Your task to perform on an android device: delete location history Image 0: 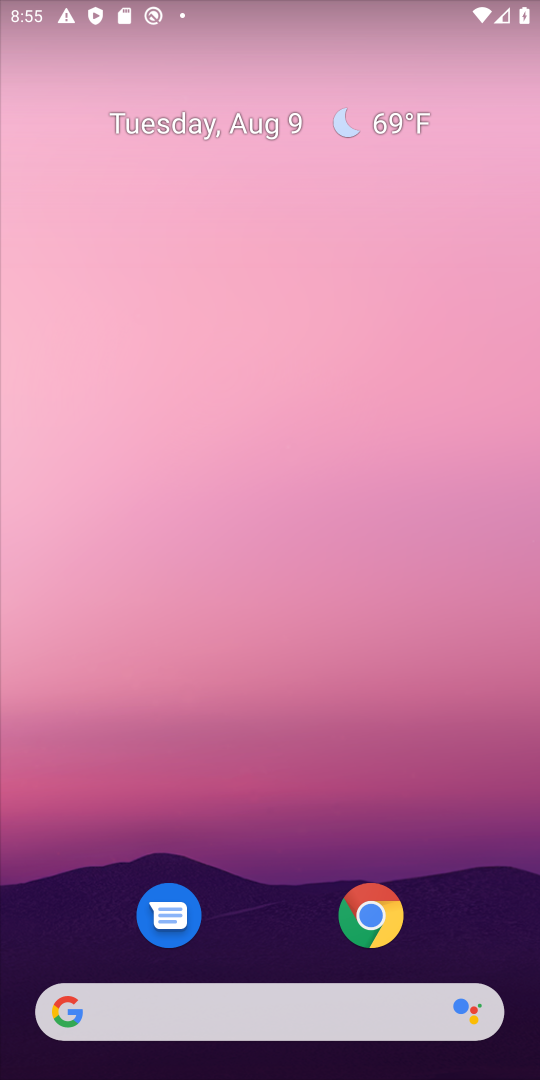
Step 0: task complete